Your task to perform on an android device: create a new album in the google photos Image 0: 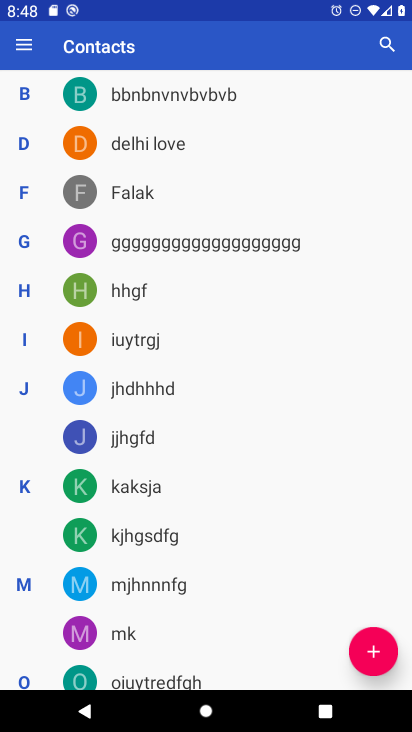
Step 0: press home button
Your task to perform on an android device: create a new album in the google photos Image 1: 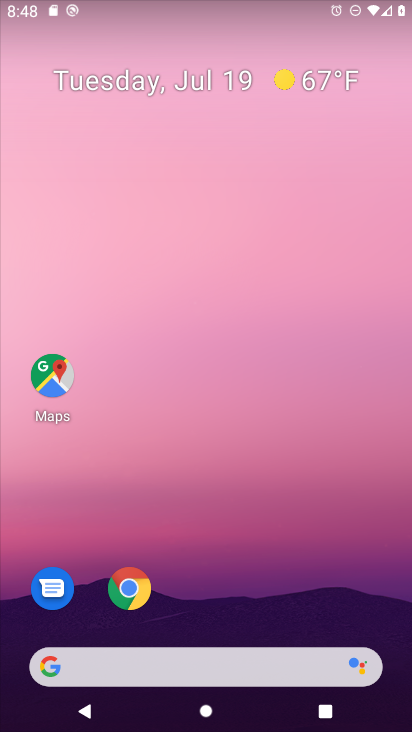
Step 1: drag from (308, 602) to (312, 154)
Your task to perform on an android device: create a new album in the google photos Image 2: 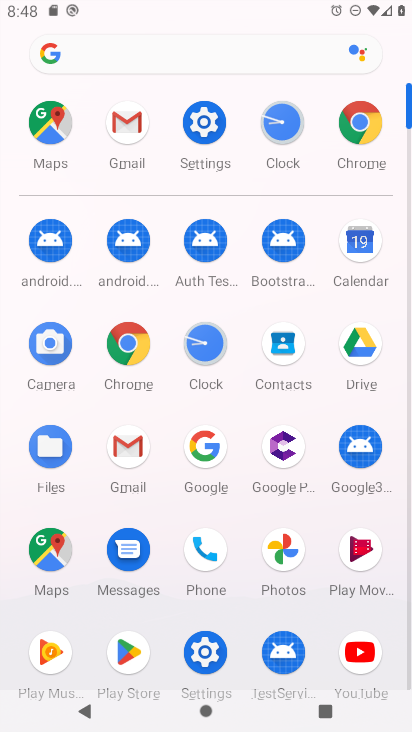
Step 2: click (286, 548)
Your task to perform on an android device: create a new album in the google photos Image 3: 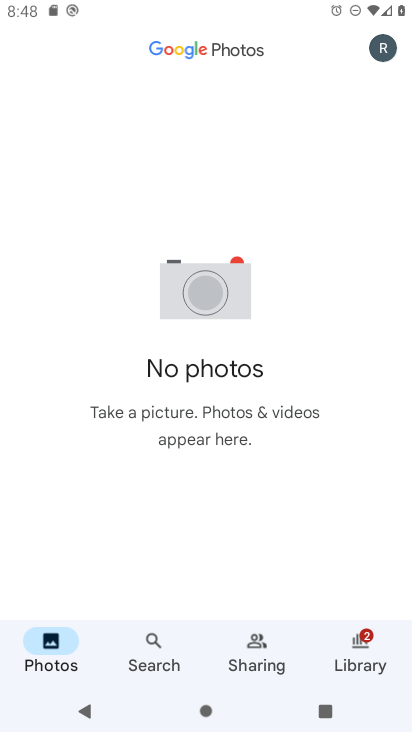
Step 3: click (353, 658)
Your task to perform on an android device: create a new album in the google photos Image 4: 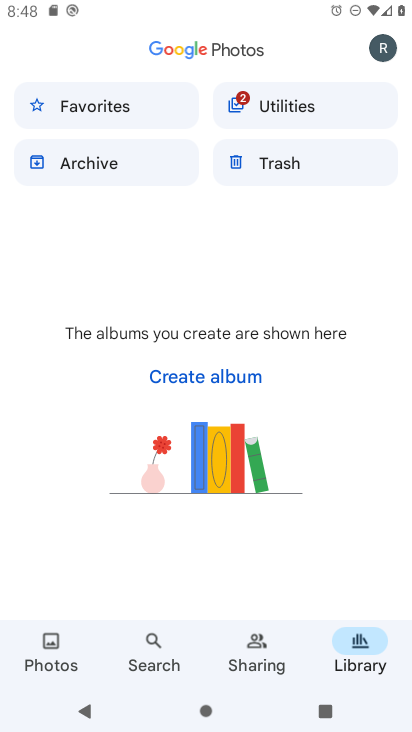
Step 4: click (224, 371)
Your task to perform on an android device: create a new album in the google photos Image 5: 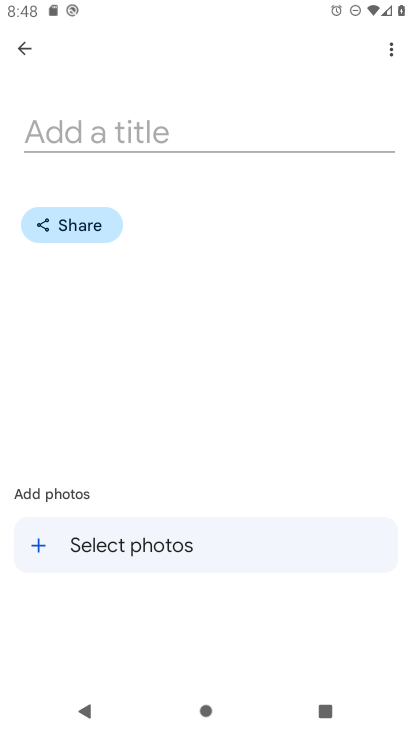
Step 5: click (199, 135)
Your task to perform on an android device: create a new album in the google photos Image 6: 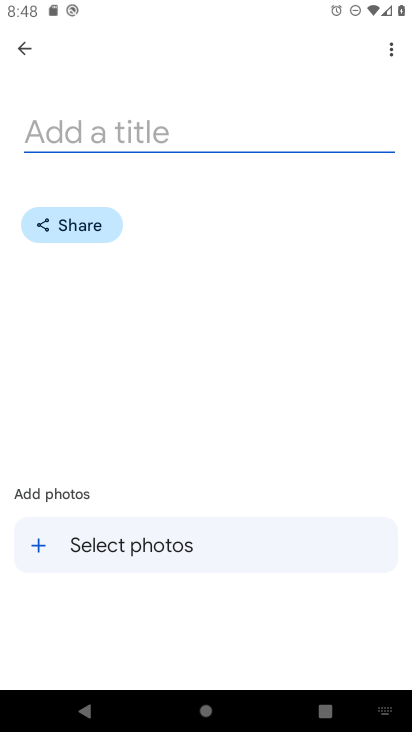
Step 6: type "fav"
Your task to perform on an android device: create a new album in the google photos Image 7: 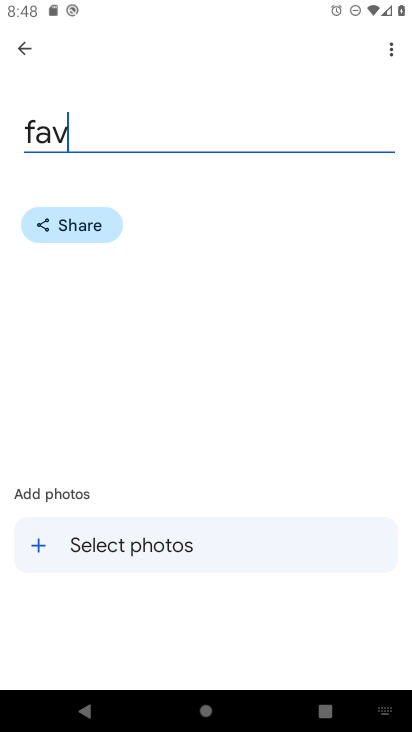
Step 7: click (205, 538)
Your task to perform on an android device: create a new album in the google photos Image 8: 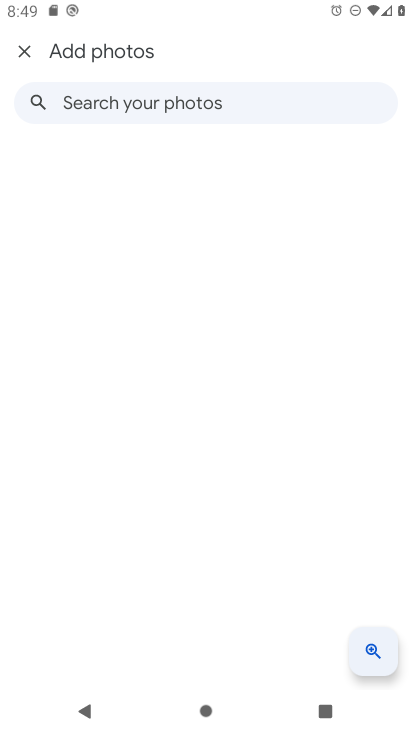
Step 8: task complete